Your task to perform on an android device: open chrome and create a bookmark for the current page Image 0: 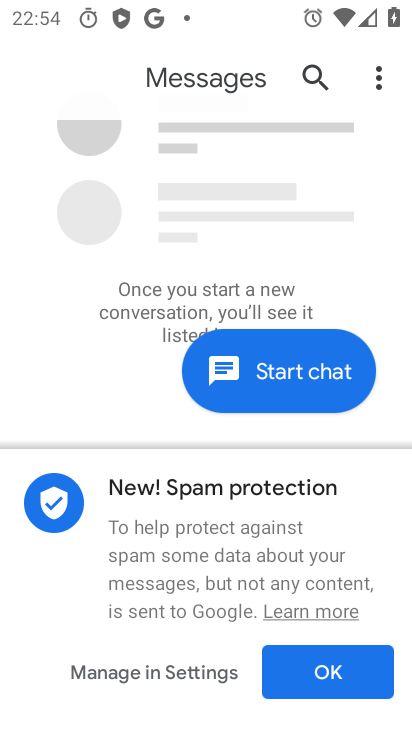
Step 0: click (341, 669)
Your task to perform on an android device: open chrome and create a bookmark for the current page Image 1: 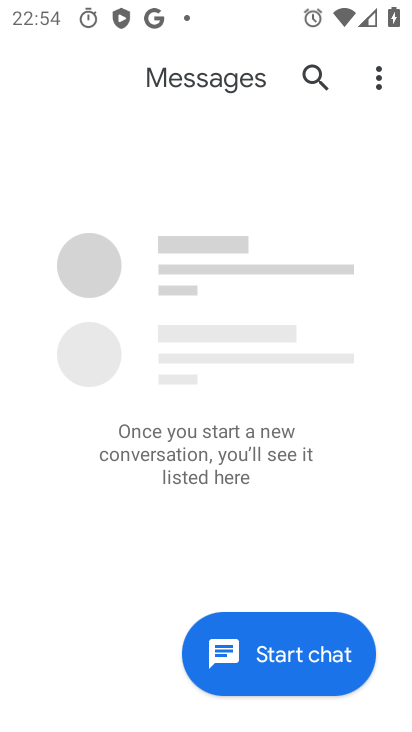
Step 1: press back button
Your task to perform on an android device: open chrome and create a bookmark for the current page Image 2: 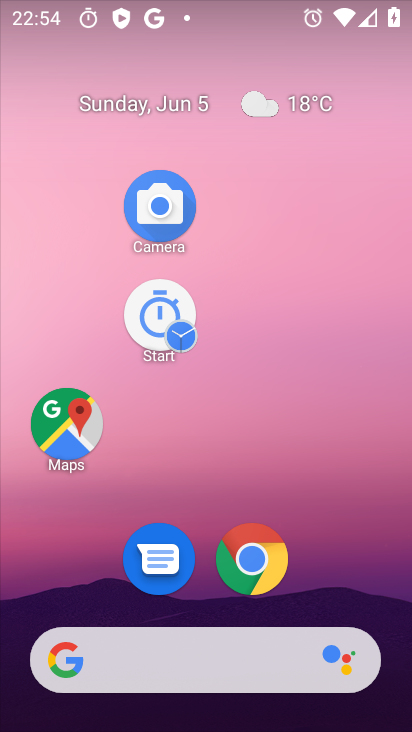
Step 2: drag from (207, 730) to (168, 135)
Your task to perform on an android device: open chrome and create a bookmark for the current page Image 3: 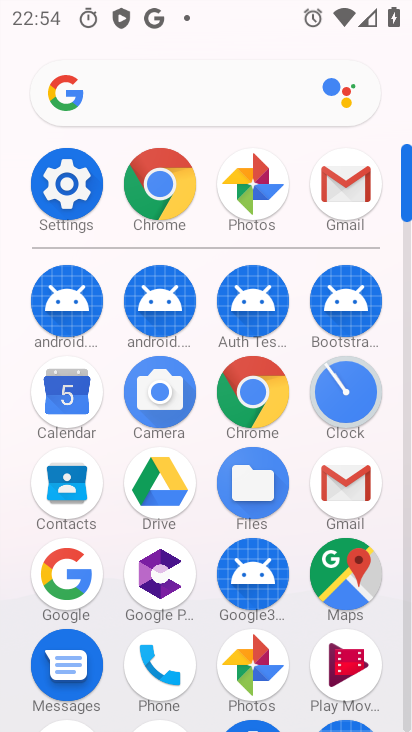
Step 3: click (156, 199)
Your task to perform on an android device: open chrome and create a bookmark for the current page Image 4: 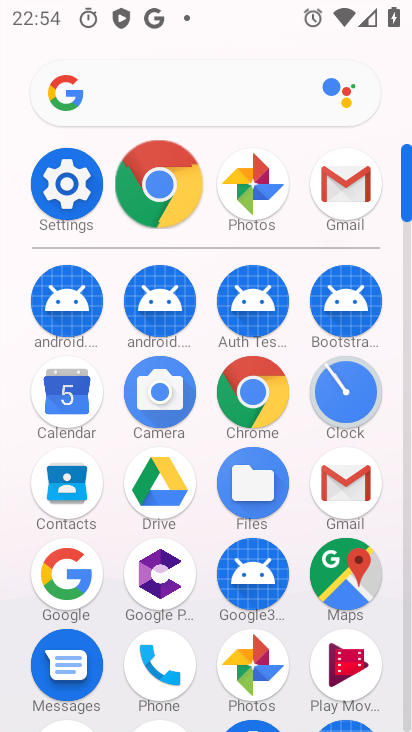
Step 4: click (156, 199)
Your task to perform on an android device: open chrome and create a bookmark for the current page Image 5: 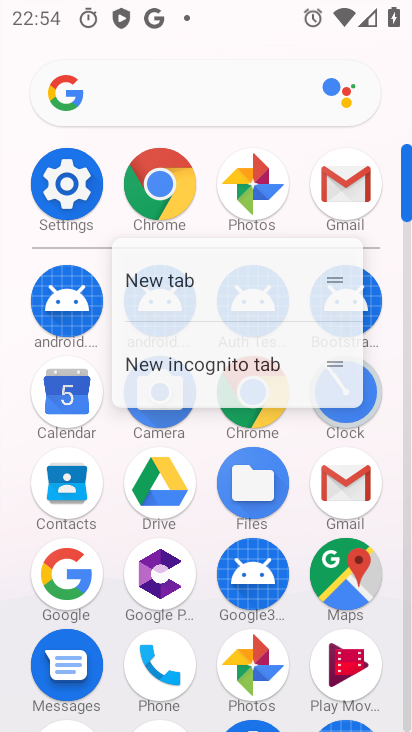
Step 5: click (156, 199)
Your task to perform on an android device: open chrome and create a bookmark for the current page Image 6: 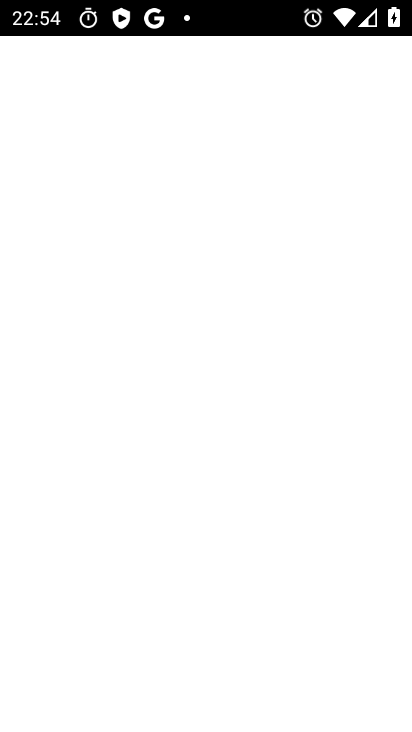
Step 6: click (156, 208)
Your task to perform on an android device: open chrome and create a bookmark for the current page Image 7: 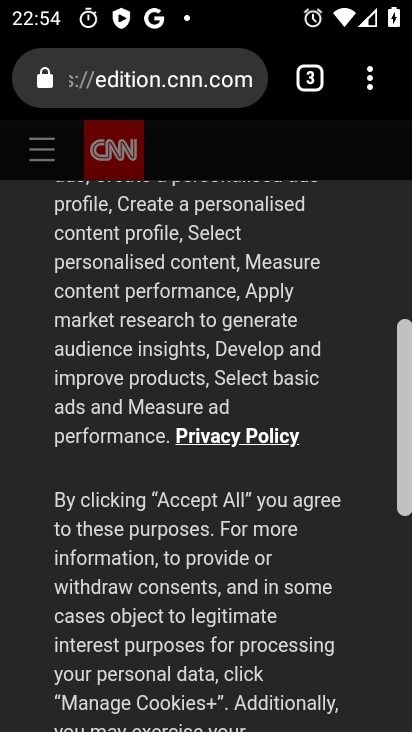
Step 7: click (365, 71)
Your task to perform on an android device: open chrome and create a bookmark for the current page Image 8: 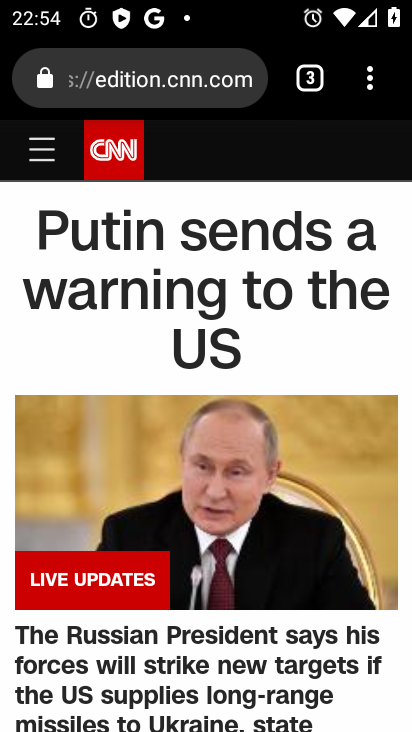
Step 8: drag from (358, 81) to (83, 152)
Your task to perform on an android device: open chrome and create a bookmark for the current page Image 9: 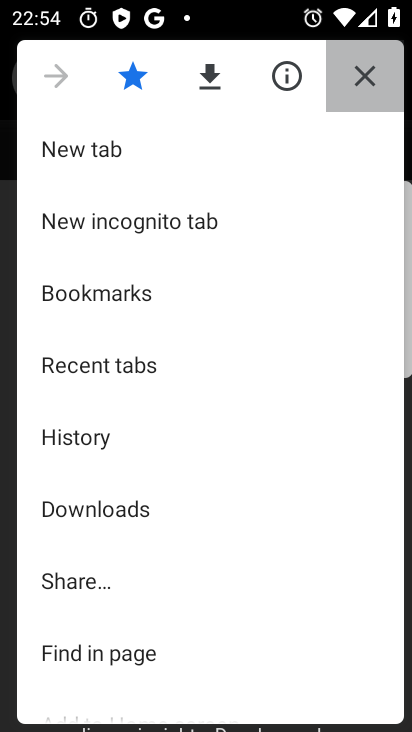
Step 9: drag from (343, 92) to (85, 153)
Your task to perform on an android device: open chrome and create a bookmark for the current page Image 10: 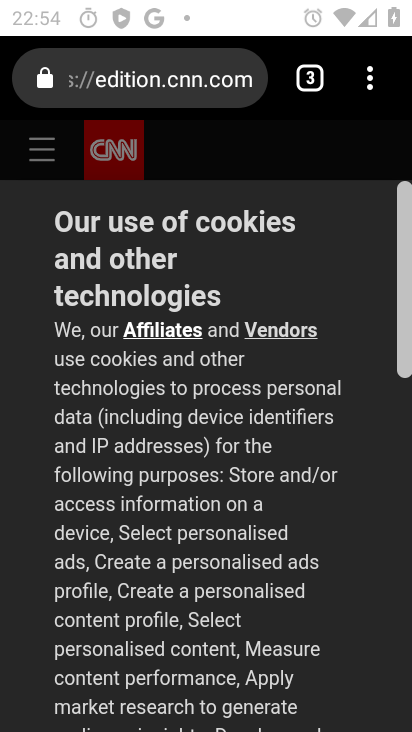
Step 10: click (89, 155)
Your task to perform on an android device: open chrome and create a bookmark for the current page Image 11: 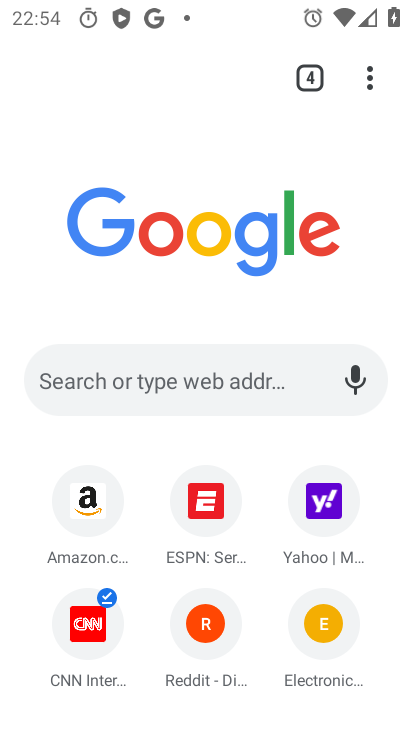
Step 11: click (107, 369)
Your task to perform on an android device: open chrome and create a bookmark for the current page Image 12: 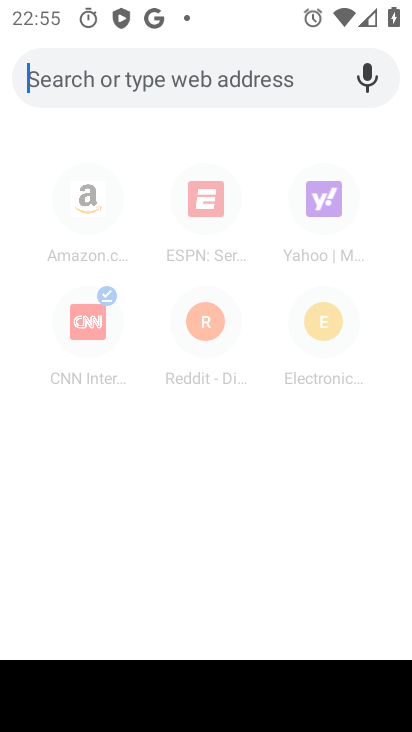
Step 12: type "www.snapdeal.com"
Your task to perform on an android device: open chrome and create a bookmark for the current page Image 13: 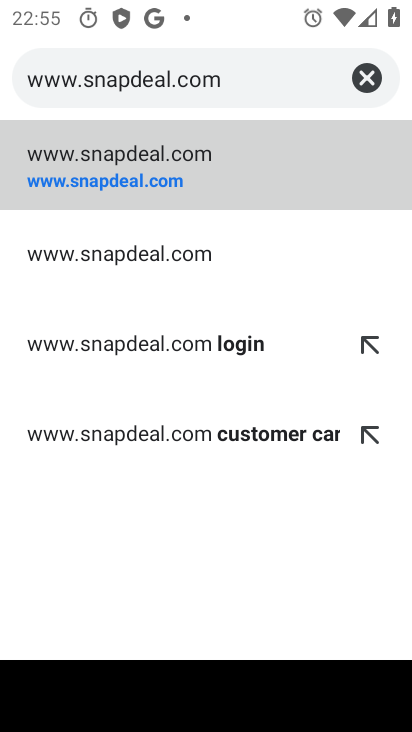
Step 13: click (96, 178)
Your task to perform on an android device: open chrome and create a bookmark for the current page Image 14: 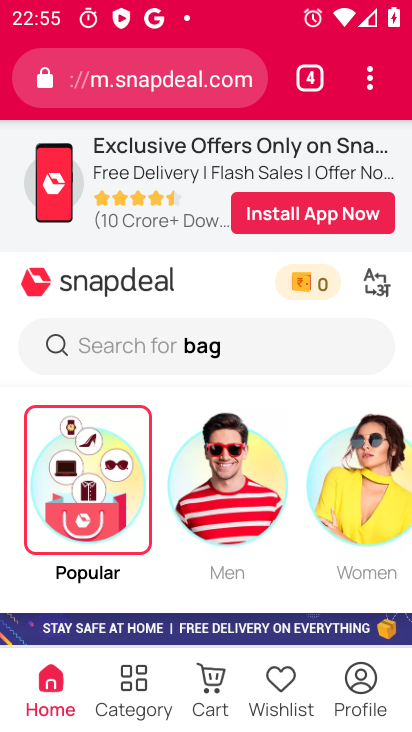
Step 14: task complete